Your task to perform on an android device: Open the calendar and show me this week's events? Image 0: 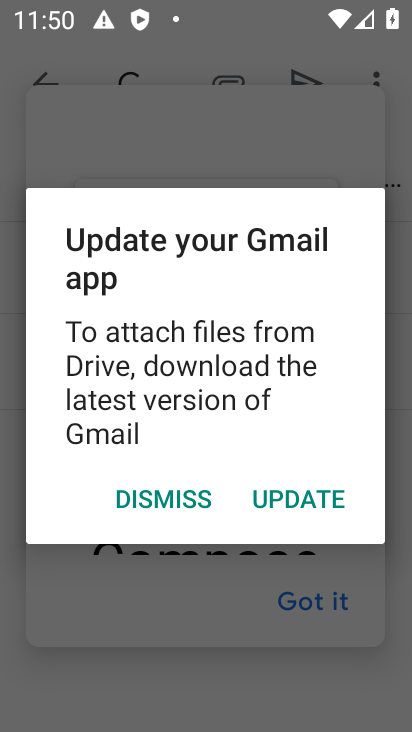
Step 0: press home button
Your task to perform on an android device: Open the calendar and show me this week's events? Image 1: 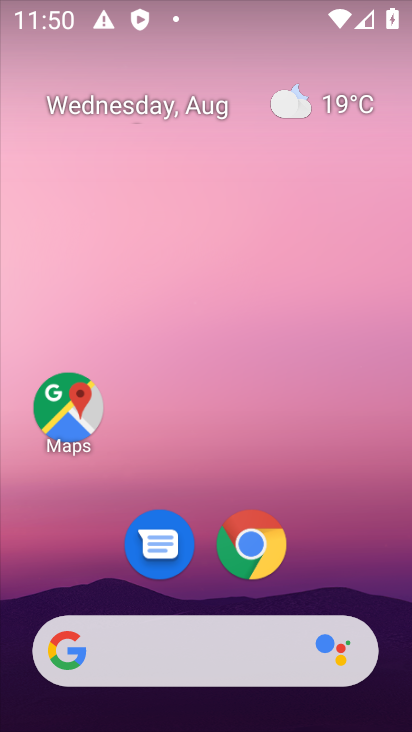
Step 1: drag from (370, 592) to (306, 212)
Your task to perform on an android device: Open the calendar and show me this week's events? Image 2: 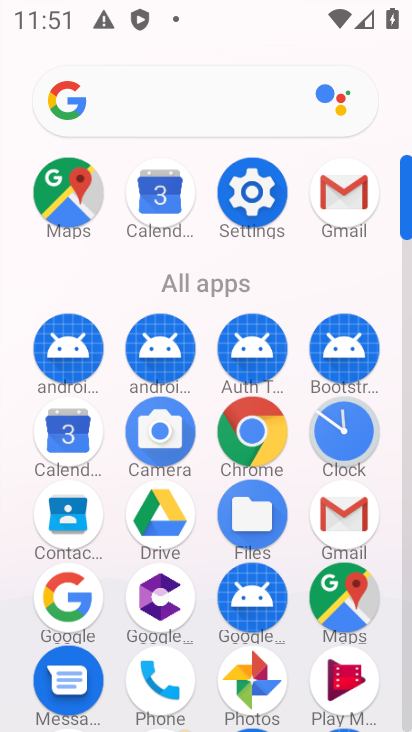
Step 2: click (81, 435)
Your task to perform on an android device: Open the calendar and show me this week's events? Image 3: 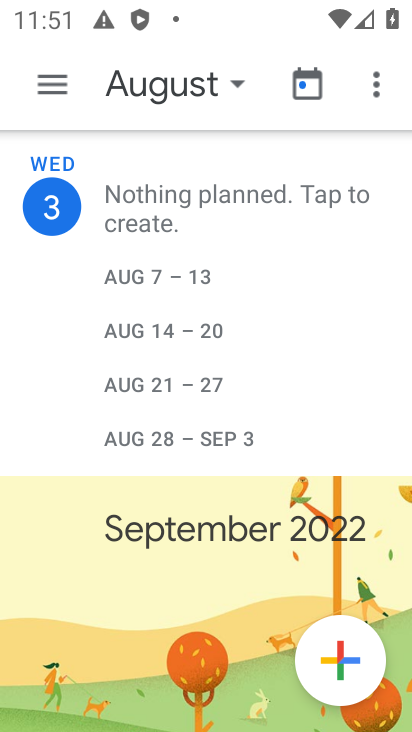
Step 3: click (63, 84)
Your task to perform on an android device: Open the calendar and show me this week's events? Image 4: 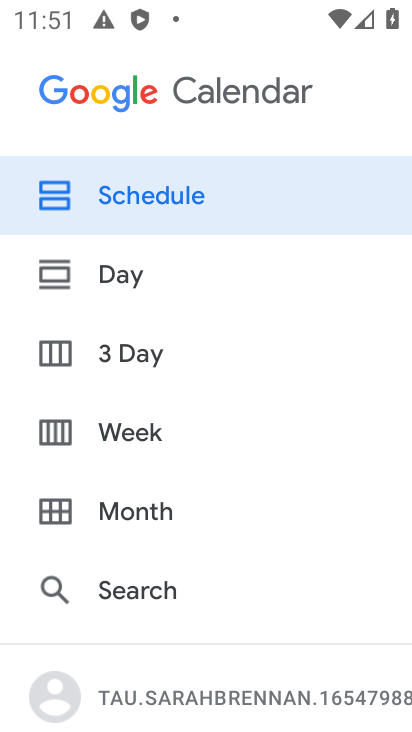
Step 4: click (110, 432)
Your task to perform on an android device: Open the calendar and show me this week's events? Image 5: 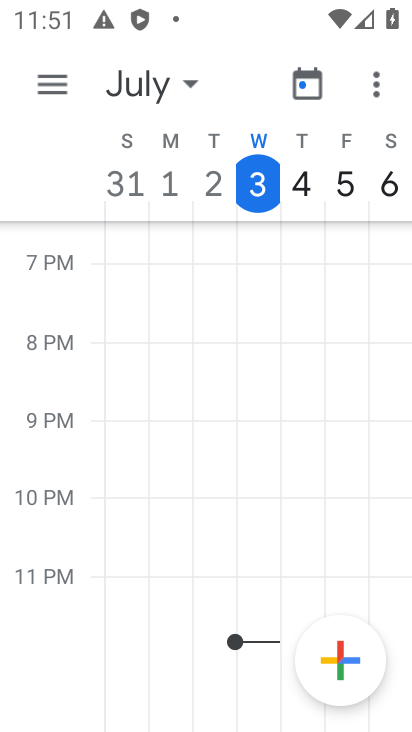
Step 5: task complete